Your task to perform on an android device: change alarm snooze length Image 0: 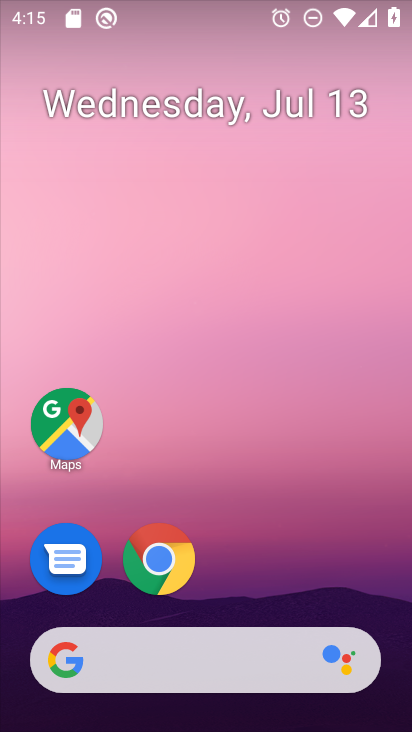
Step 0: drag from (362, 597) to (366, 250)
Your task to perform on an android device: change alarm snooze length Image 1: 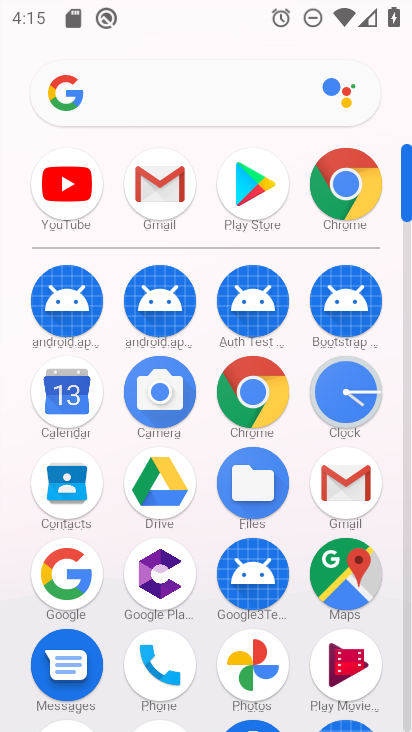
Step 1: click (358, 403)
Your task to perform on an android device: change alarm snooze length Image 2: 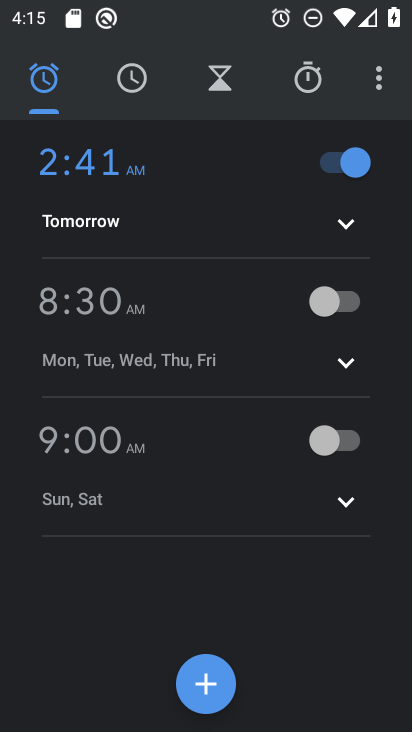
Step 2: click (383, 95)
Your task to perform on an android device: change alarm snooze length Image 3: 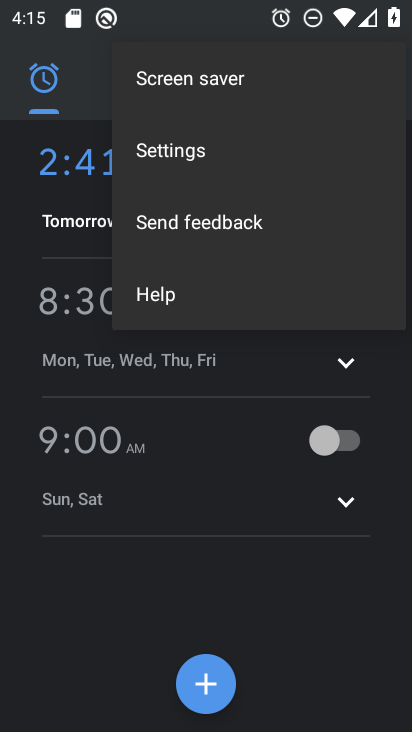
Step 3: click (210, 175)
Your task to perform on an android device: change alarm snooze length Image 4: 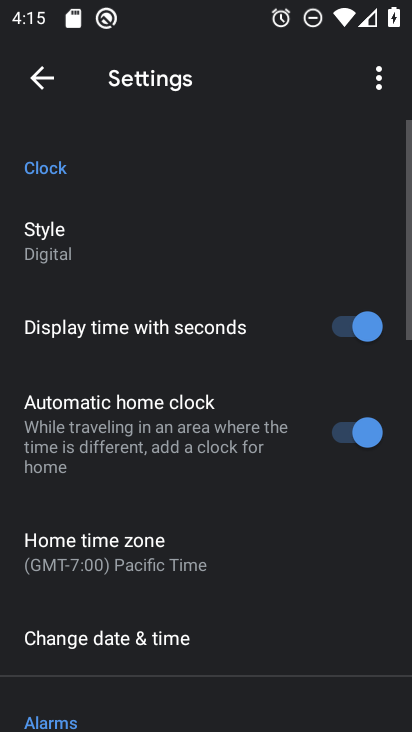
Step 4: drag from (268, 430) to (275, 357)
Your task to perform on an android device: change alarm snooze length Image 5: 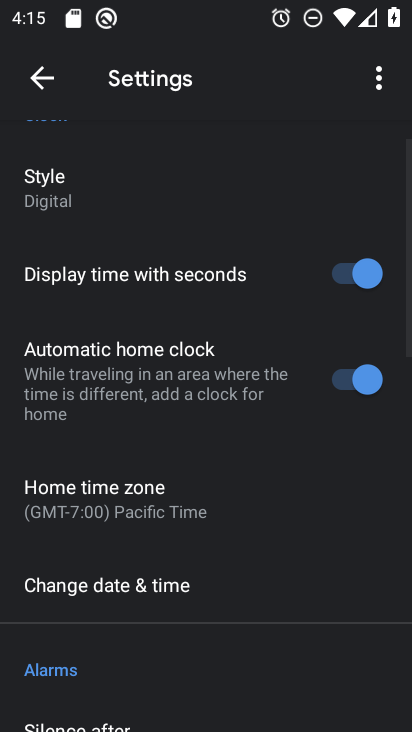
Step 5: drag from (270, 473) to (278, 372)
Your task to perform on an android device: change alarm snooze length Image 6: 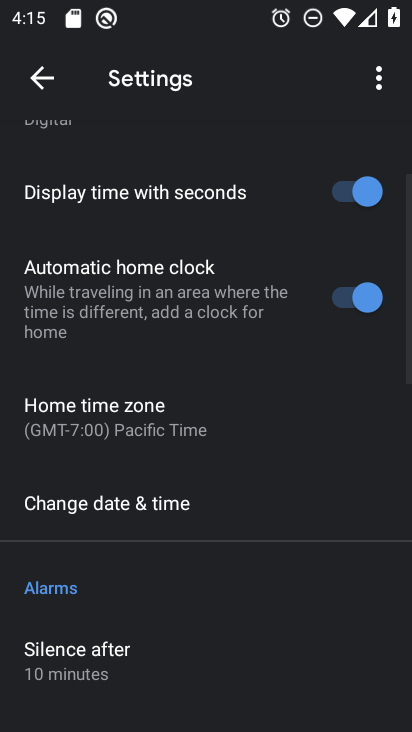
Step 6: drag from (276, 468) to (284, 386)
Your task to perform on an android device: change alarm snooze length Image 7: 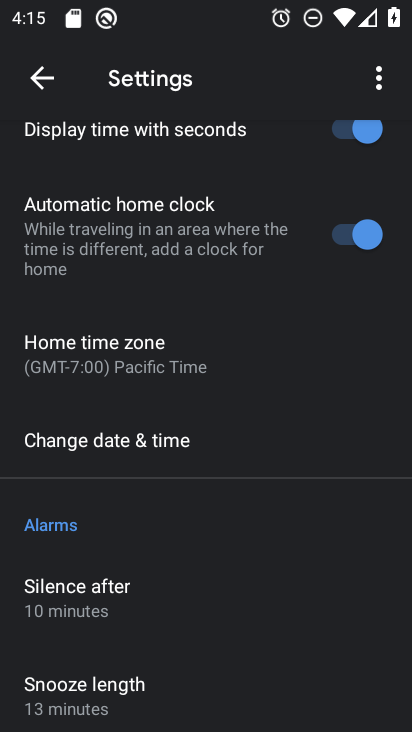
Step 7: drag from (273, 485) to (277, 379)
Your task to perform on an android device: change alarm snooze length Image 8: 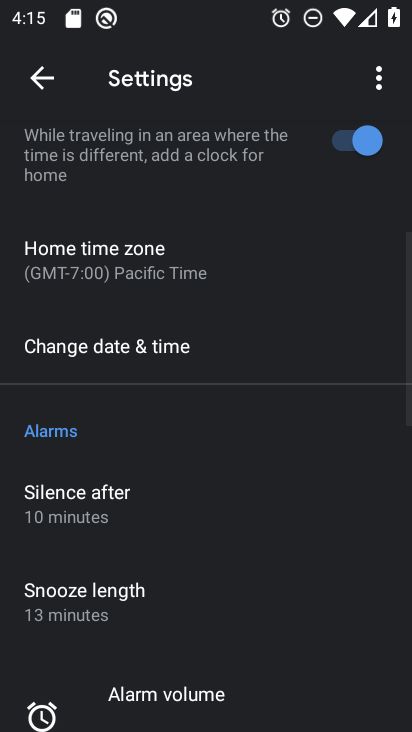
Step 8: drag from (275, 499) to (284, 392)
Your task to perform on an android device: change alarm snooze length Image 9: 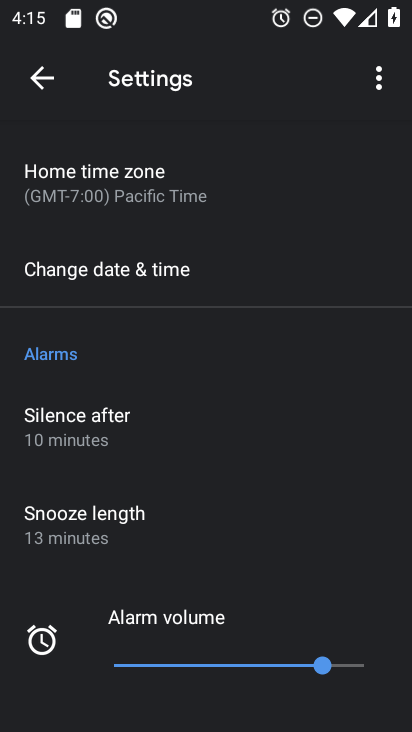
Step 9: click (176, 535)
Your task to perform on an android device: change alarm snooze length Image 10: 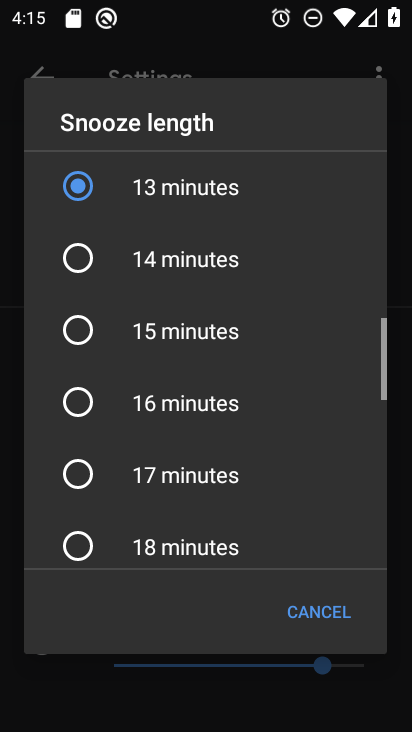
Step 10: click (183, 487)
Your task to perform on an android device: change alarm snooze length Image 11: 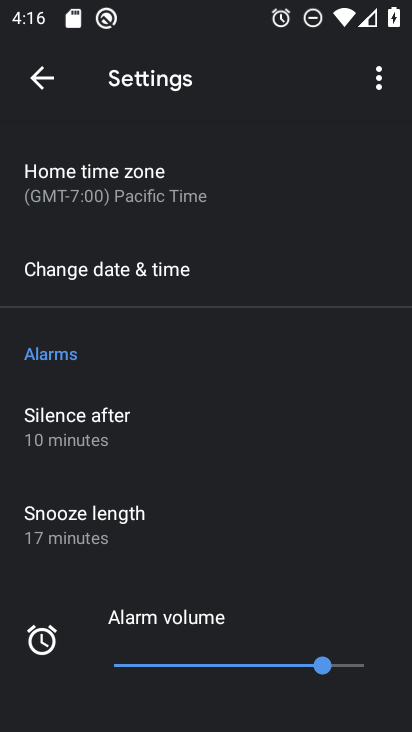
Step 11: task complete